Your task to perform on an android device: turn on wifi Image 0: 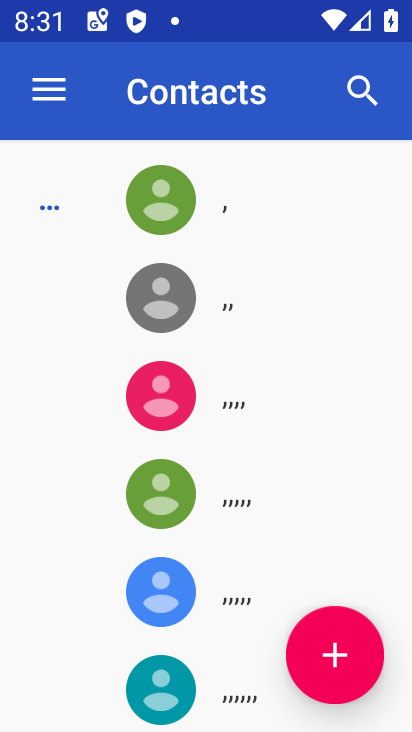
Step 0: press home button
Your task to perform on an android device: turn on wifi Image 1: 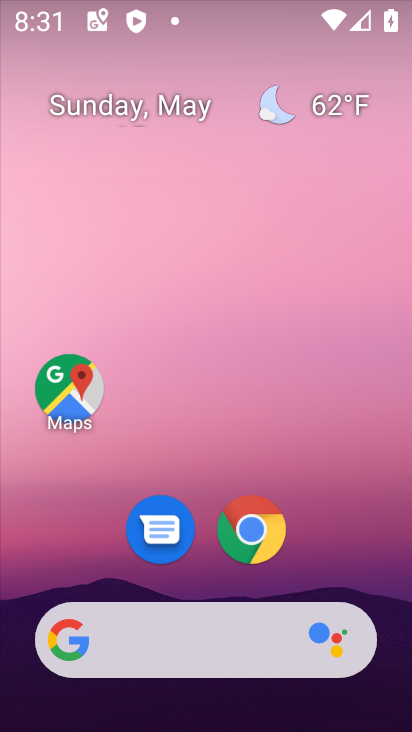
Step 1: drag from (350, 556) to (380, 112)
Your task to perform on an android device: turn on wifi Image 2: 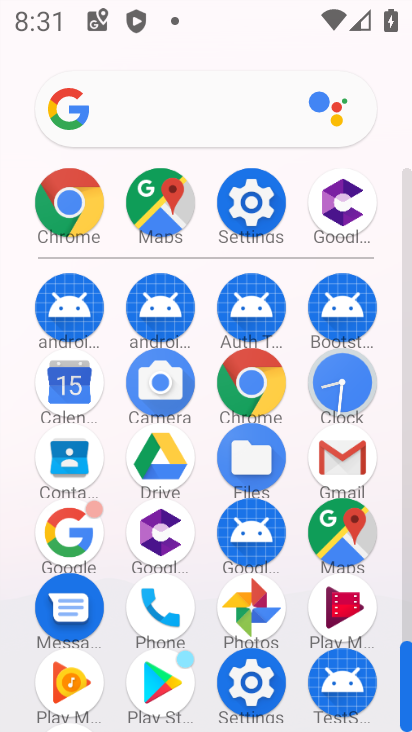
Step 2: click (259, 208)
Your task to perform on an android device: turn on wifi Image 3: 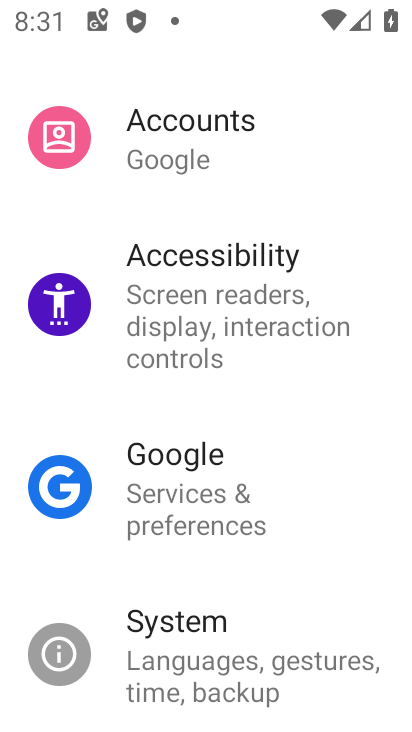
Step 3: drag from (223, 158) to (189, 647)
Your task to perform on an android device: turn on wifi Image 4: 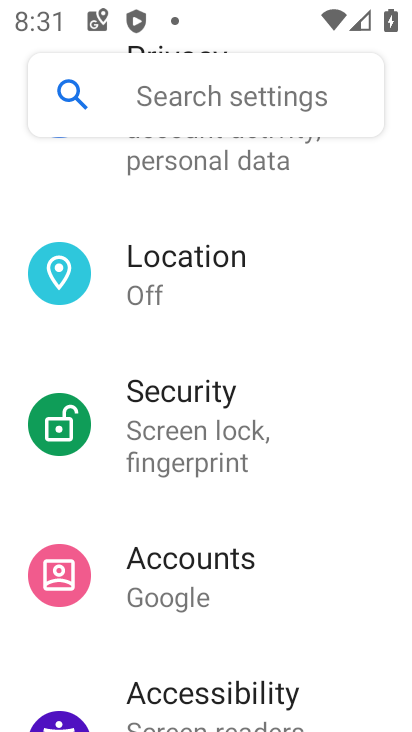
Step 4: drag from (229, 209) to (218, 670)
Your task to perform on an android device: turn on wifi Image 5: 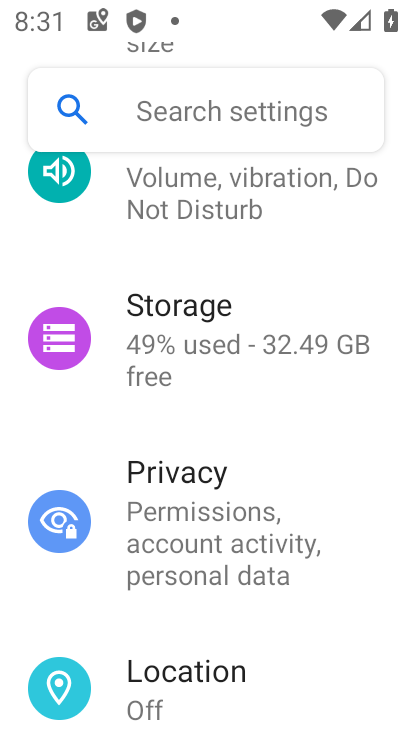
Step 5: drag from (277, 515) to (269, 663)
Your task to perform on an android device: turn on wifi Image 6: 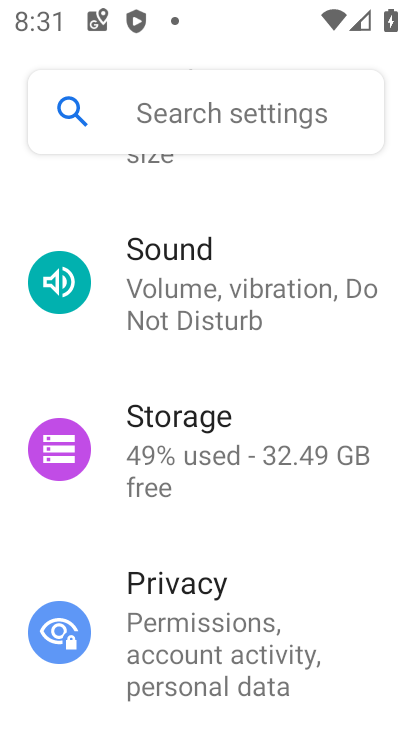
Step 6: drag from (316, 242) to (326, 724)
Your task to perform on an android device: turn on wifi Image 7: 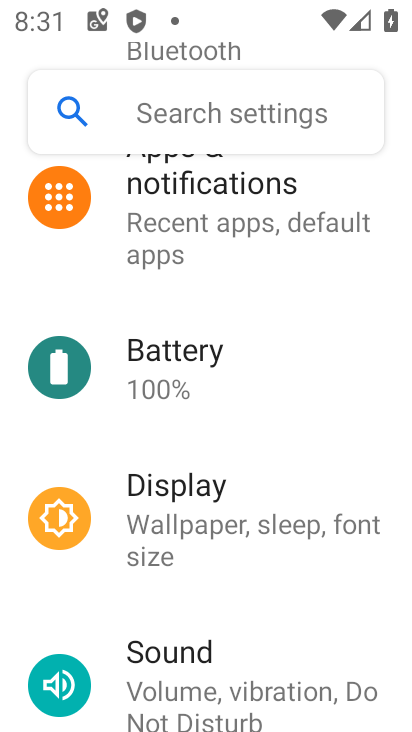
Step 7: drag from (341, 288) to (322, 709)
Your task to perform on an android device: turn on wifi Image 8: 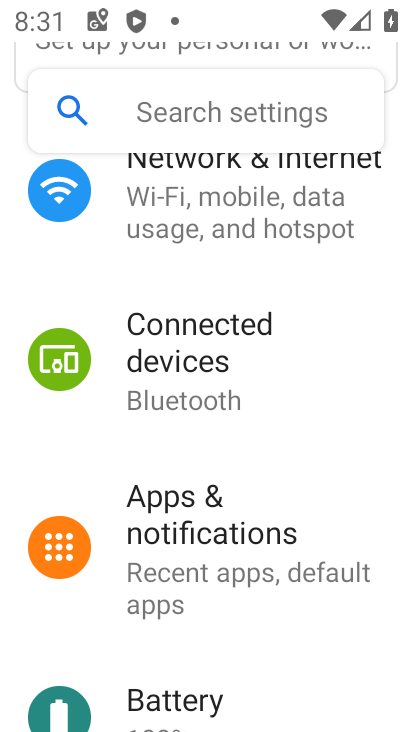
Step 8: drag from (321, 309) to (323, 697)
Your task to perform on an android device: turn on wifi Image 9: 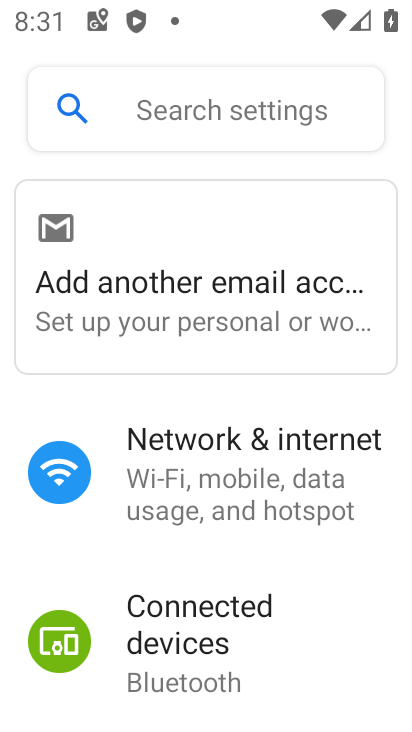
Step 9: click (301, 483)
Your task to perform on an android device: turn on wifi Image 10: 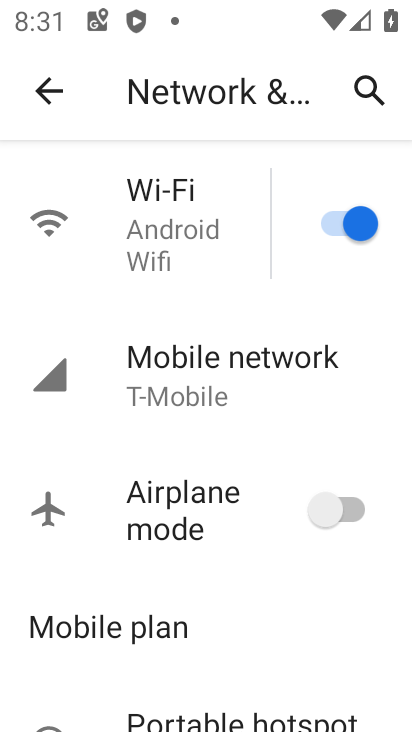
Step 10: click (214, 230)
Your task to perform on an android device: turn on wifi Image 11: 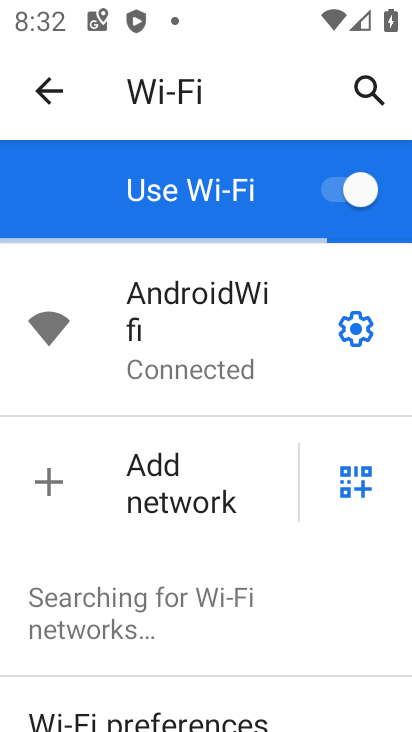
Step 11: click (362, 335)
Your task to perform on an android device: turn on wifi Image 12: 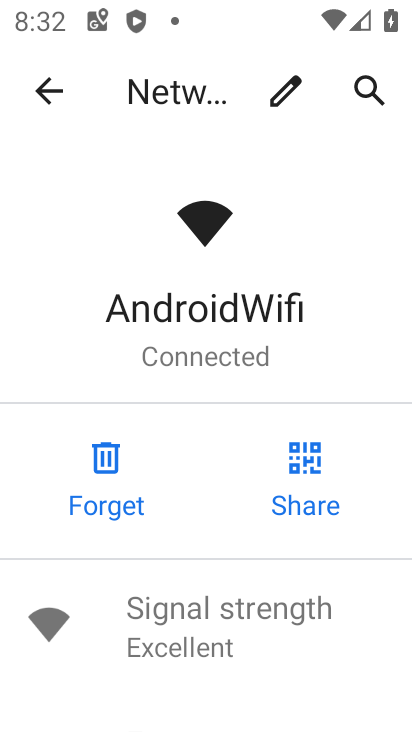
Step 12: task complete